Your task to perform on an android device: Go to display settings Image 0: 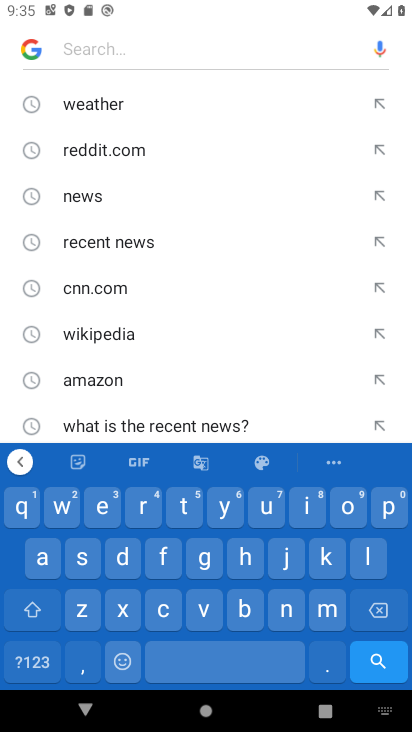
Step 0: press home button
Your task to perform on an android device: Go to display settings Image 1: 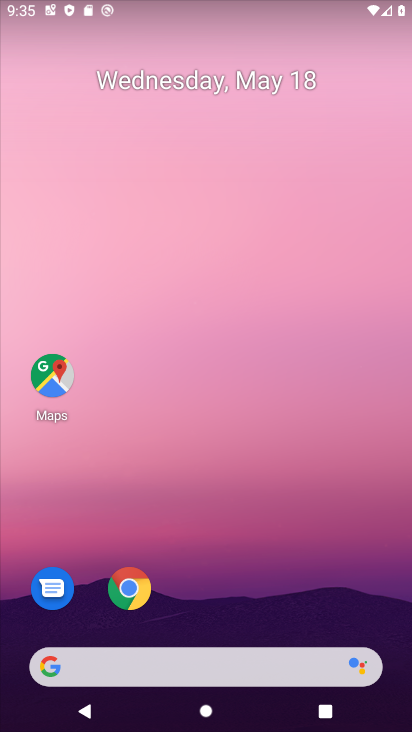
Step 1: drag from (251, 680) to (300, 74)
Your task to perform on an android device: Go to display settings Image 2: 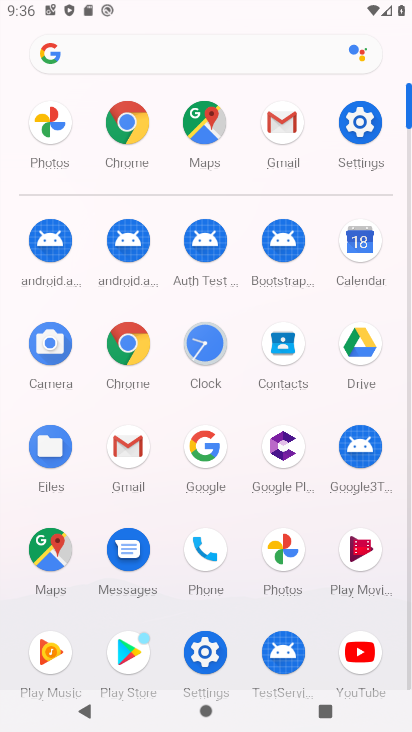
Step 2: click (204, 642)
Your task to perform on an android device: Go to display settings Image 3: 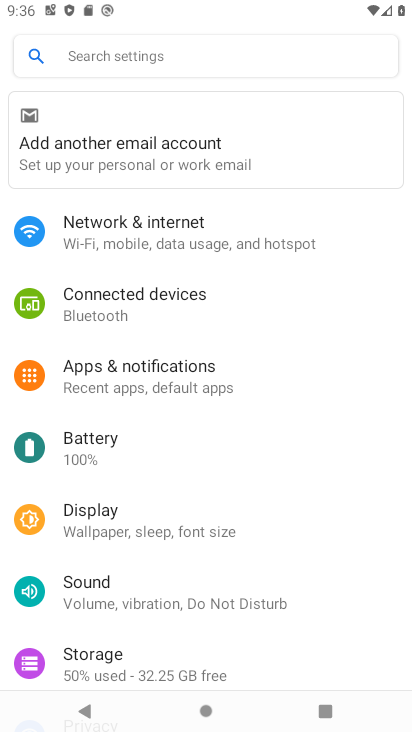
Step 3: click (154, 533)
Your task to perform on an android device: Go to display settings Image 4: 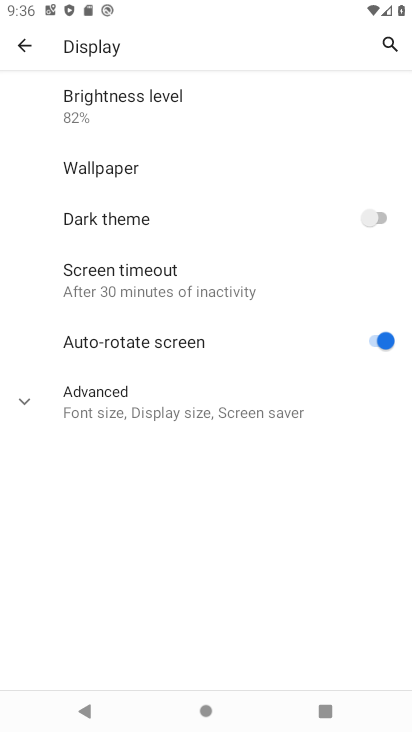
Step 4: task complete